Your task to perform on an android device: Open internet settings Image 0: 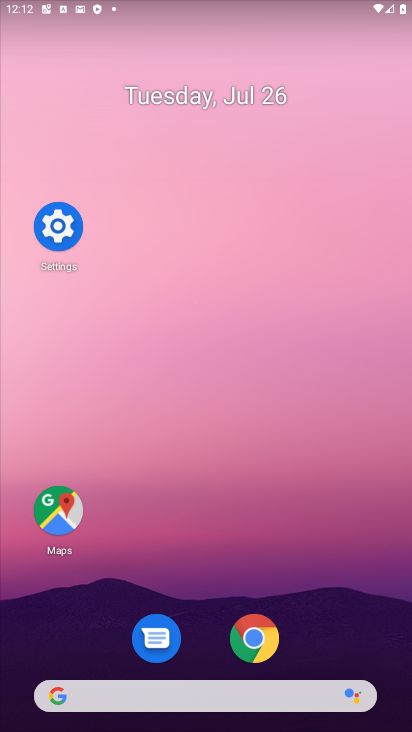
Step 0: click (70, 222)
Your task to perform on an android device: Open internet settings Image 1: 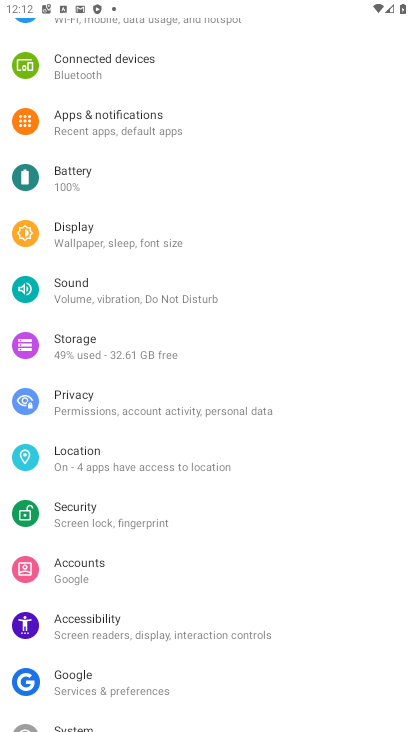
Step 1: drag from (183, 94) to (199, 420)
Your task to perform on an android device: Open internet settings Image 2: 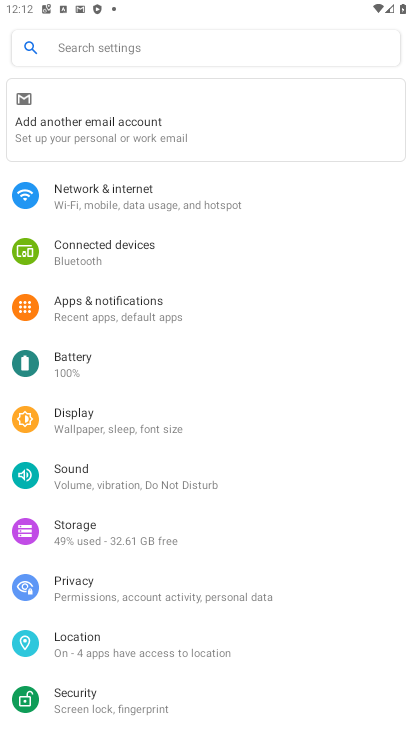
Step 2: click (168, 196)
Your task to perform on an android device: Open internet settings Image 3: 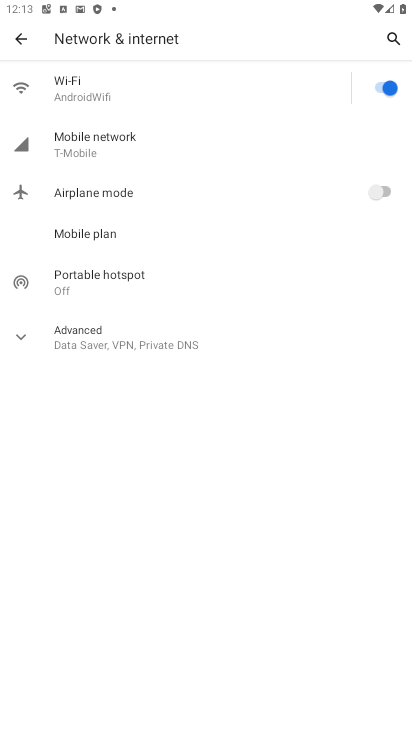
Step 3: task complete